Your task to perform on an android device: Search for Italian restaurants on Maps Image 0: 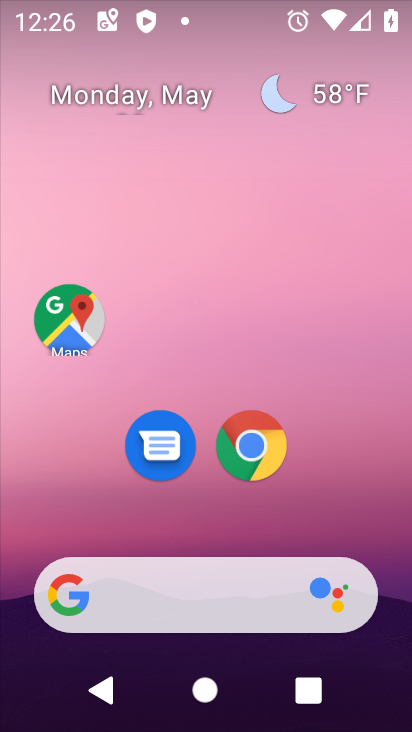
Step 0: click (73, 316)
Your task to perform on an android device: Search for Italian restaurants on Maps Image 1: 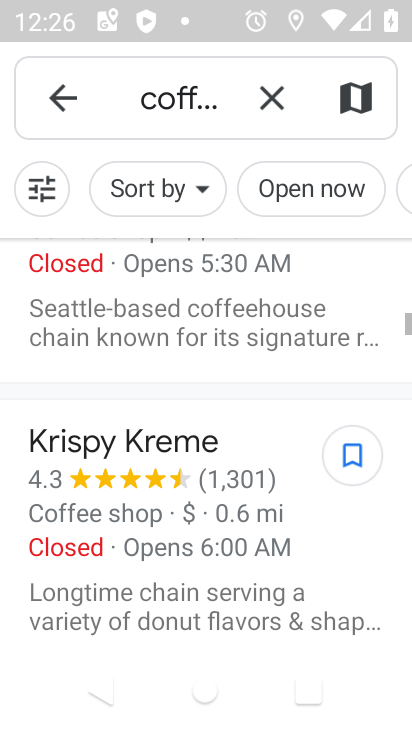
Step 1: click (272, 98)
Your task to perform on an android device: Search for Italian restaurants on Maps Image 2: 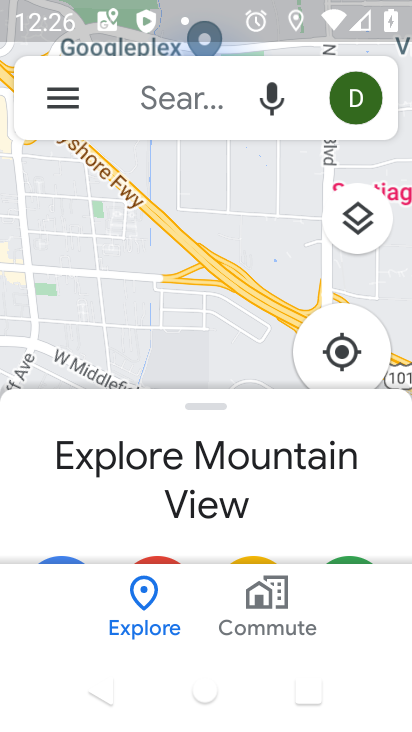
Step 2: click (155, 97)
Your task to perform on an android device: Search for Italian restaurants on Maps Image 3: 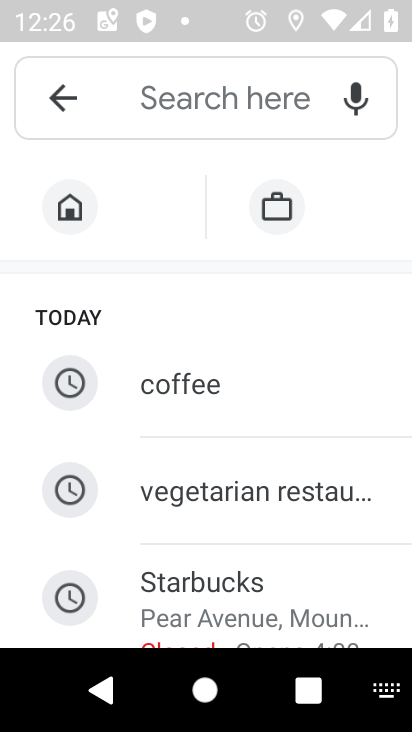
Step 3: drag from (216, 569) to (191, 185)
Your task to perform on an android device: Search for Italian restaurants on Maps Image 4: 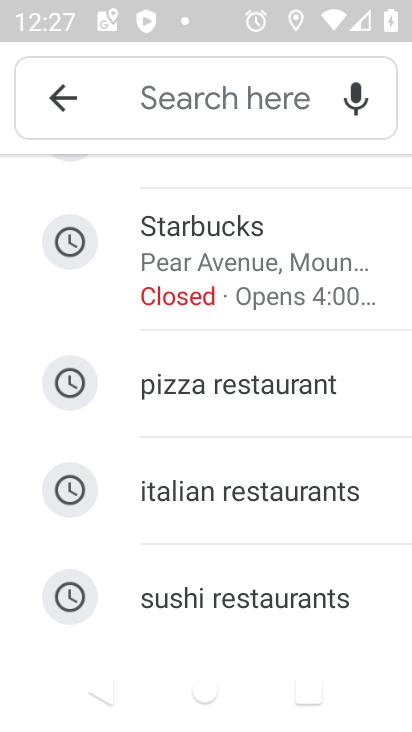
Step 4: click (216, 500)
Your task to perform on an android device: Search for Italian restaurants on Maps Image 5: 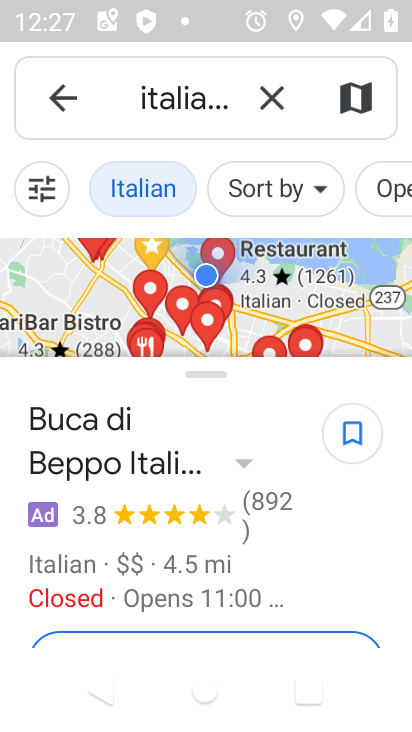
Step 5: task complete